Your task to perform on an android device: Empty the shopping cart on walmart.com. Search for usb-b on walmart.com, select the first entry, and add it to the cart. Image 0: 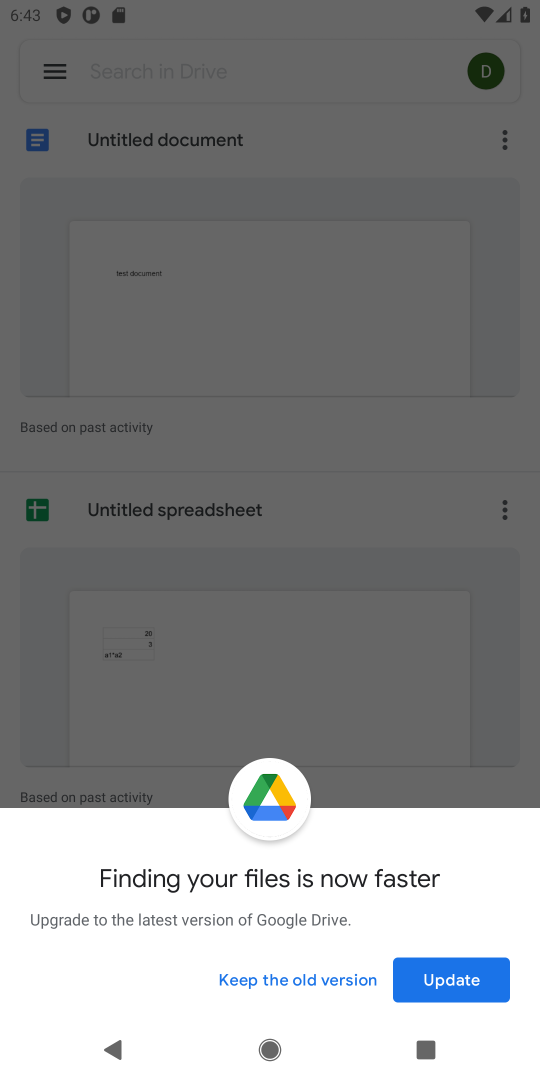
Step 0: press home button
Your task to perform on an android device: Empty the shopping cart on walmart.com. Search for usb-b on walmart.com, select the first entry, and add it to the cart. Image 1: 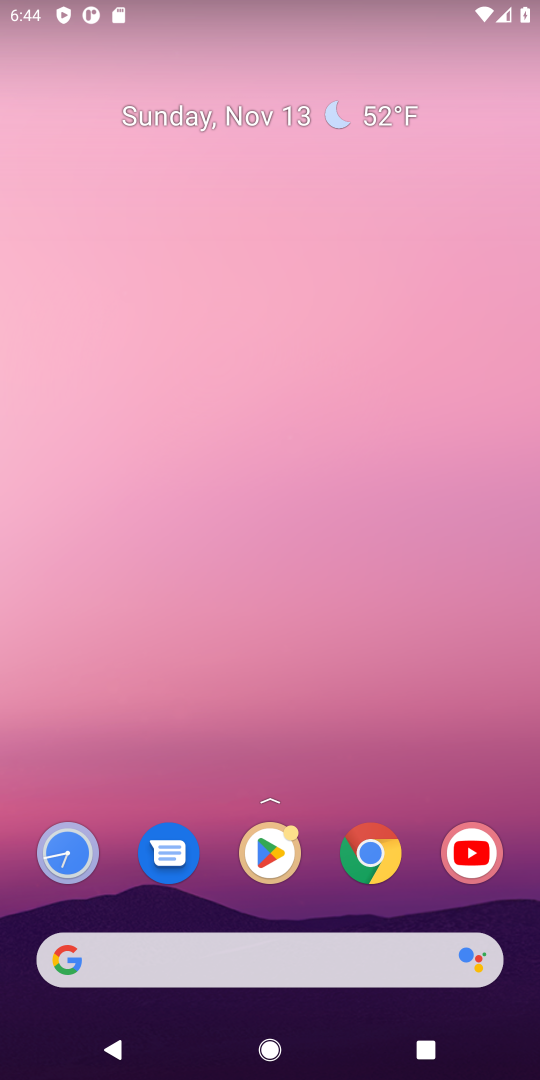
Step 1: click (104, 965)
Your task to perform on an android device: Empty the shopping cart on walmart.com. Search for usb-b on walmart.com, select the first entry, and add it to the cart. Image 2: 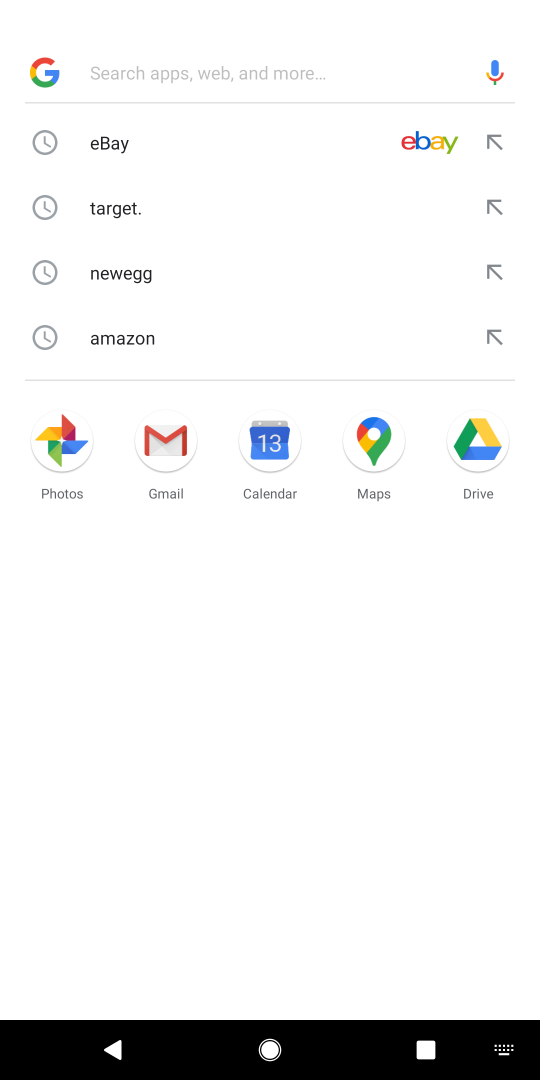
Step 2: type "walmart.com"
Your task to perform on an android device: Empty the shopping cart on walmart.com. Search for usb-b on walmart.com, select the first entry, and add it to the cart. Image 3: 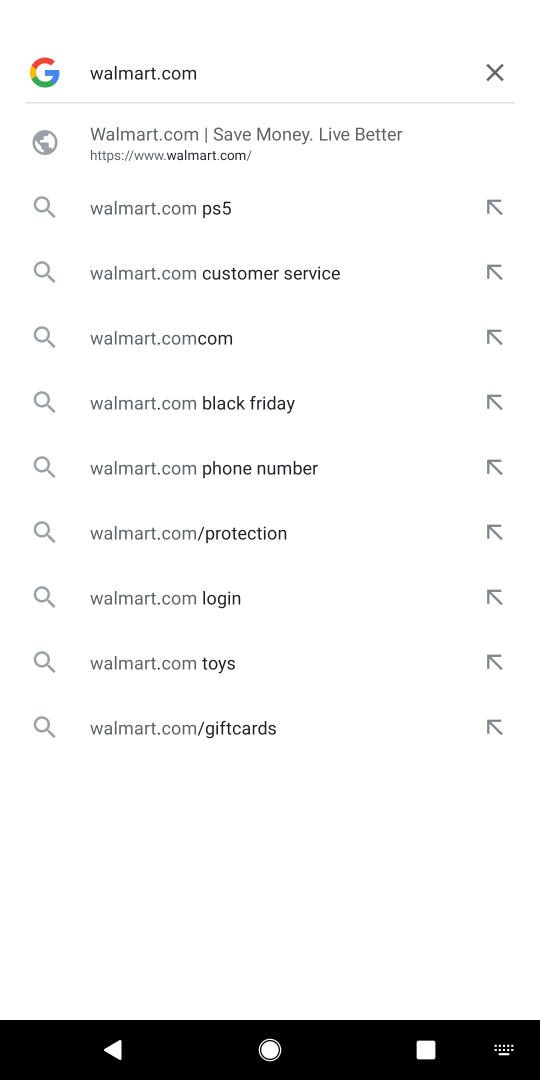
Step 3: press enter
Your task to perform on an android device: Empty the shopping cart on walmart.com. Search for usb-b on walmart.com, select the first entry, and add it to the cart. Image 4: 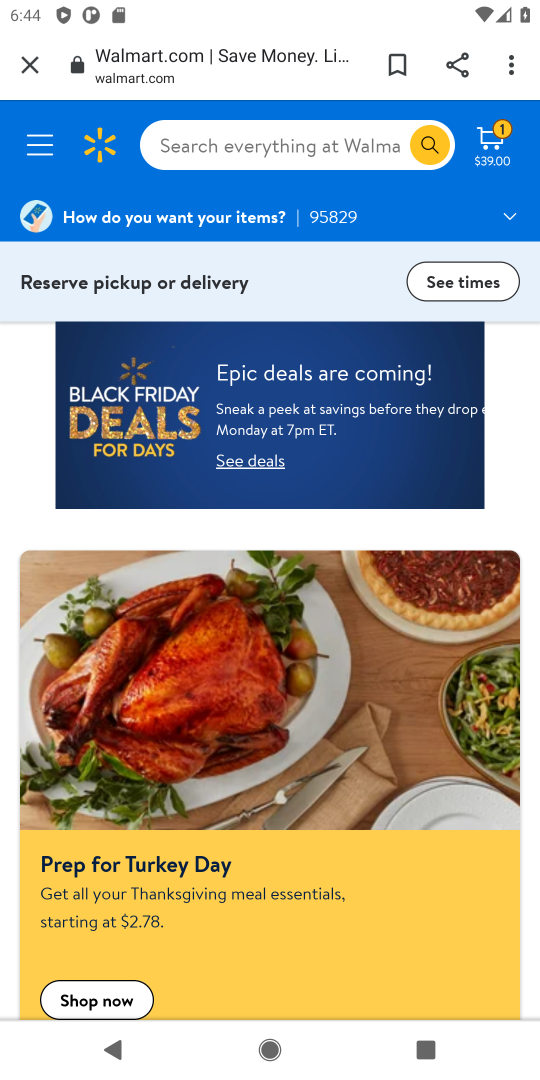
Step 4: click (494, 140)
Your task to perform on an android device: Empty the shopping cart on walmart.com. Search for usb-b on walmart.com, select the first entry, and add it to the cart. Image 5: 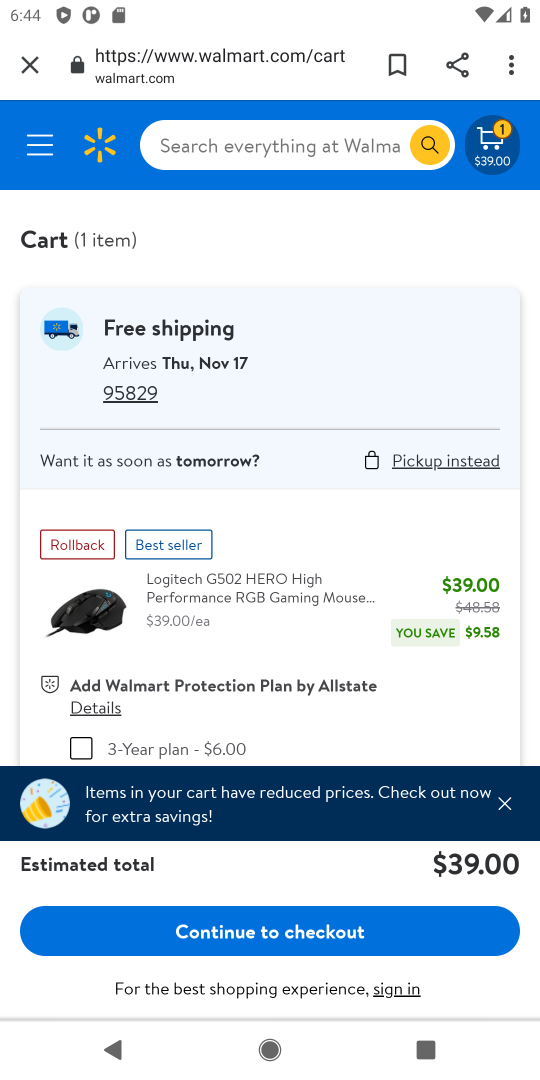
Step 5: drag from (232, 644) to (232, 344)
Your task to perform on an android device: Empty the shopping cart on walmart.com. Search for usb-b on walmart.com, select the first entry, and add it to the cart. Image 6: 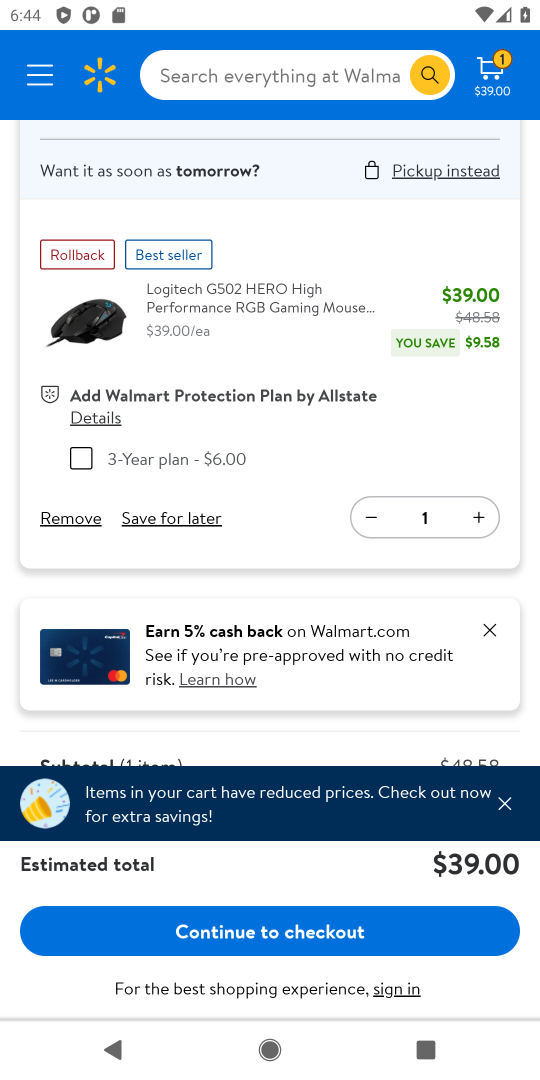
Step 6: click (63, 520)
Your task to perform on an android device: Empty the shopping cart on walmart.com. Search for usb-b on walmart.com, select the first entry, and add it to the cart. Image 7: 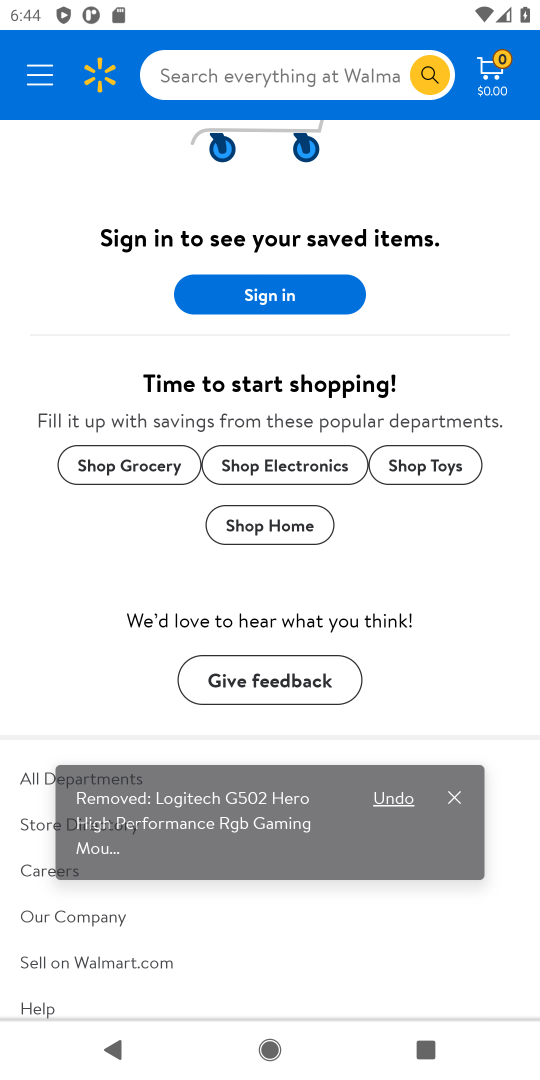
Step 7: click (192, 82)
Your task to perform on an android device: Empty the shopping cart on walmart.com. Search for usb-b on walmart.com, select the first entry, and add it to the cart. Image 8: 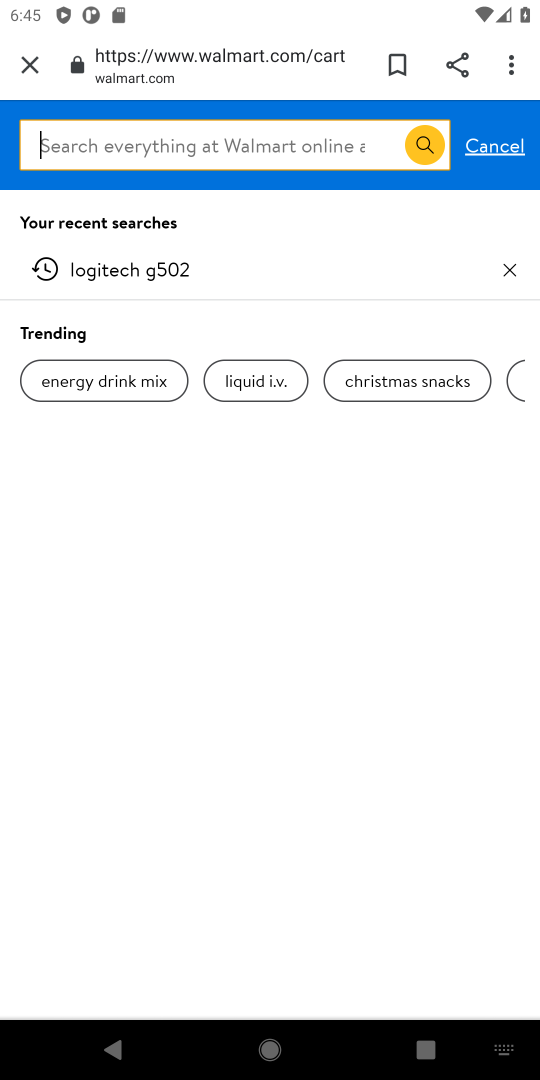
Step 8: type "usb-b "
Your task to perform on an android device: Empty the shopping cart on walmart.com. Search for usb-b on walmart.com, select the first entry, and add it to the cart. Image 9: 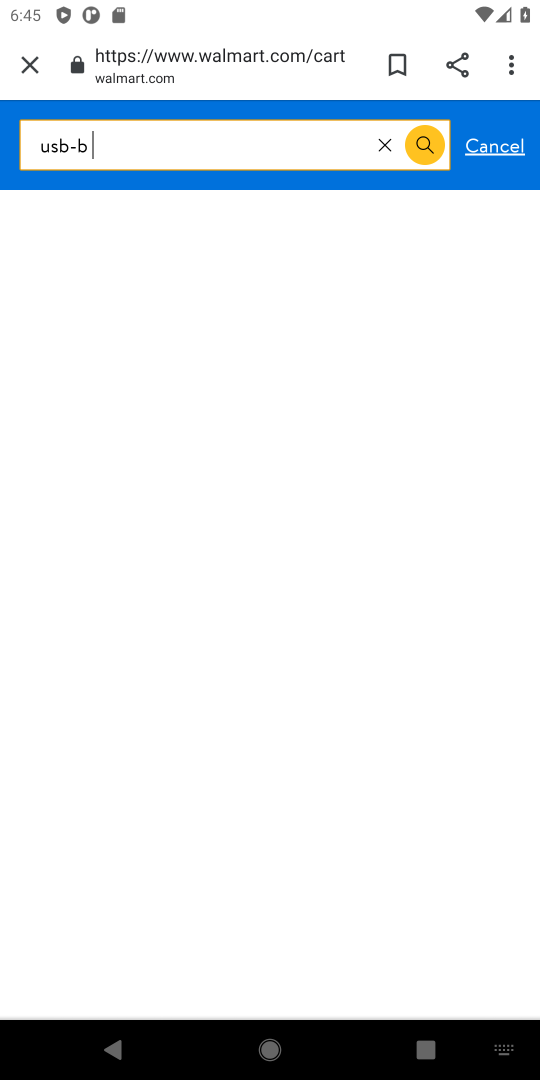
Step 9: press enter
Your task to perform on an android device: Empty the shopping cart on walmart.com. Search for usb-b on walmart.com, select the first entry, and add it to the cart. Image 10: 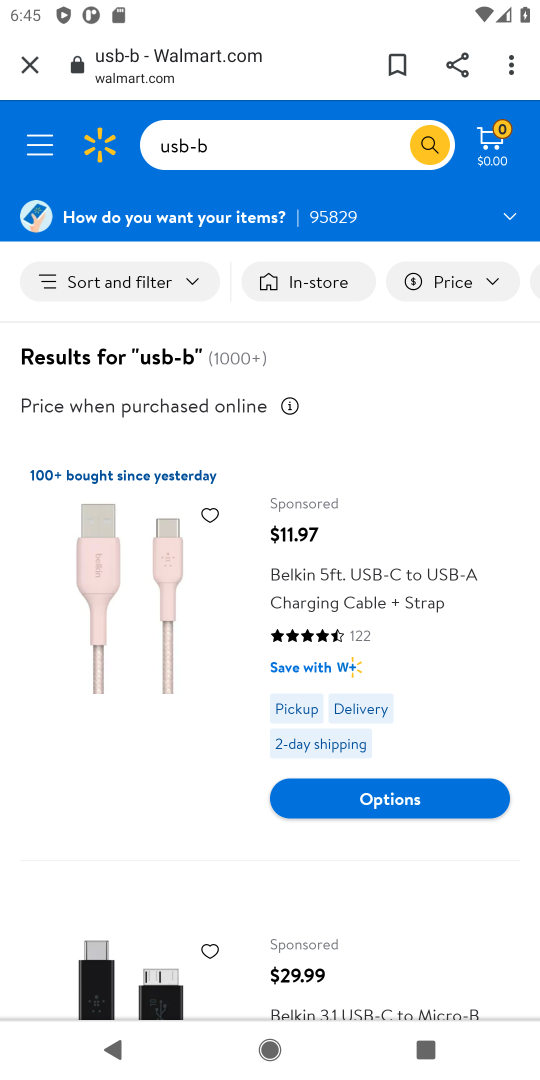
Step 10: drag from (352, 835) to (389, 574)
Your task to perform on an android device: Empty the shopping cart on walmart.com. Search for usb-b on walmart.com, select the first entry, and add it to the cart. Image 11: 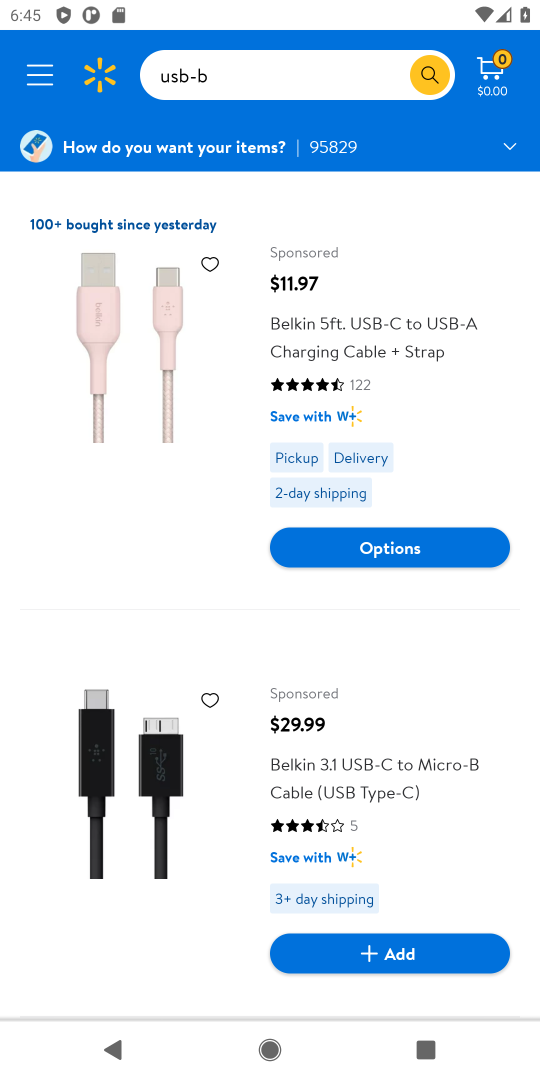
Step 11: drag from (387, 772) to (396, 633)
Your task to perform on an android device: Empty the shopping cart on walmart.com. Search for usb-b on walmart.com, select the first entry, and add it to the cart. Image 12: 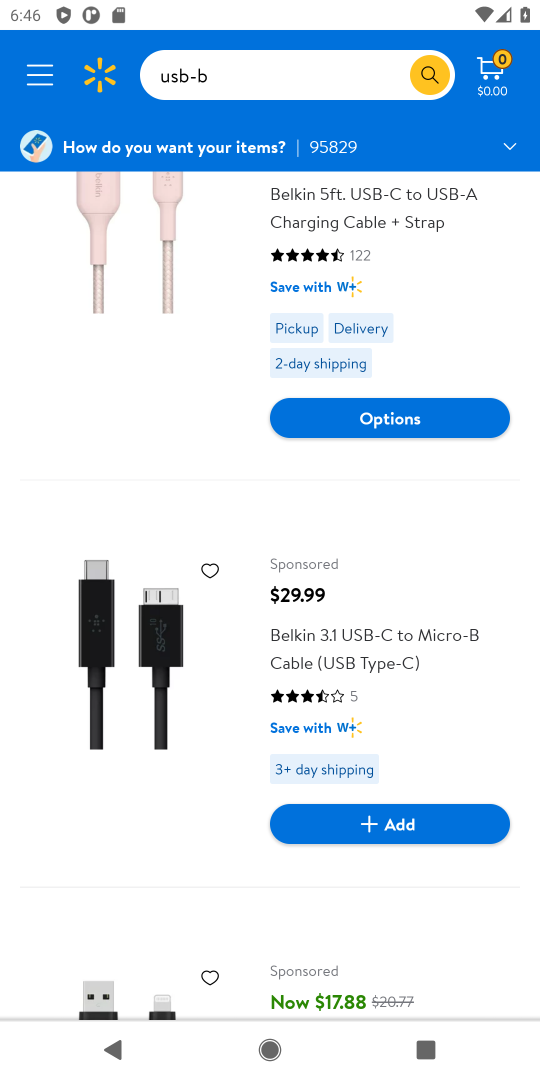
Step 12: click (372, 820)
Your task to perform on an android device: Empty the shopping cart on walmart.com. Search for usb-b on walmart.com, select the first entry, and add it to the cart. Image 13: 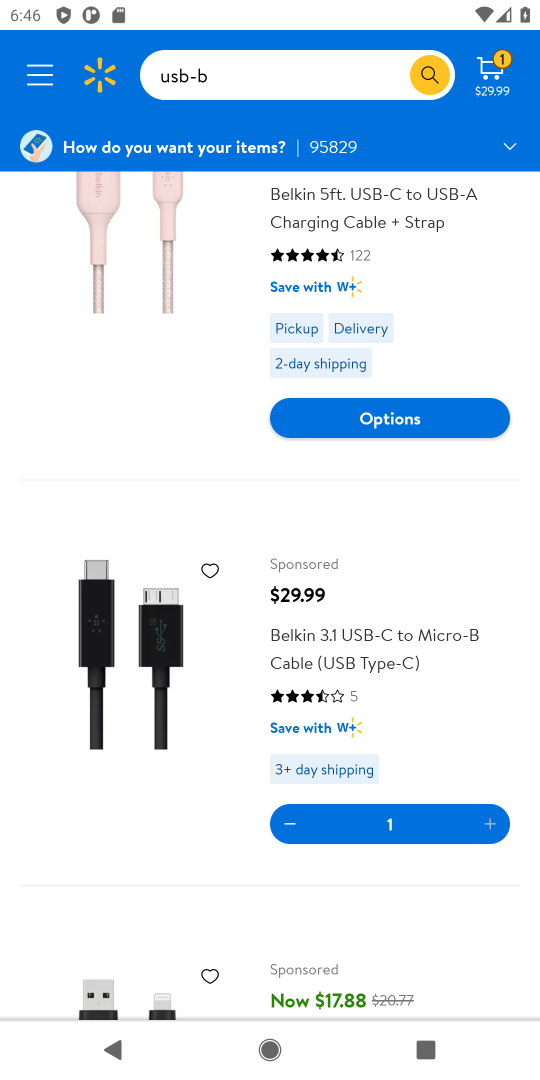
Step 13: click (307, 604)
Your task to perform on an android device: Empty the shopping cart on walmart.com. Search for usb-b on walmart.com, select the first entry, and add it to the cart. Image 14: 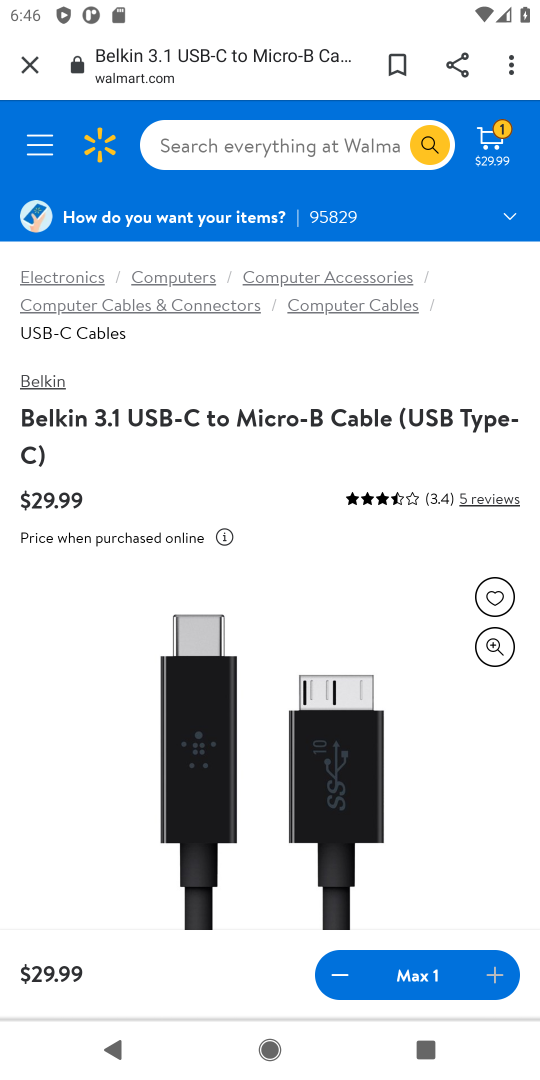
Step 14: task complete